Your task to perform on an android device: clear history in the chrome app Image 0: 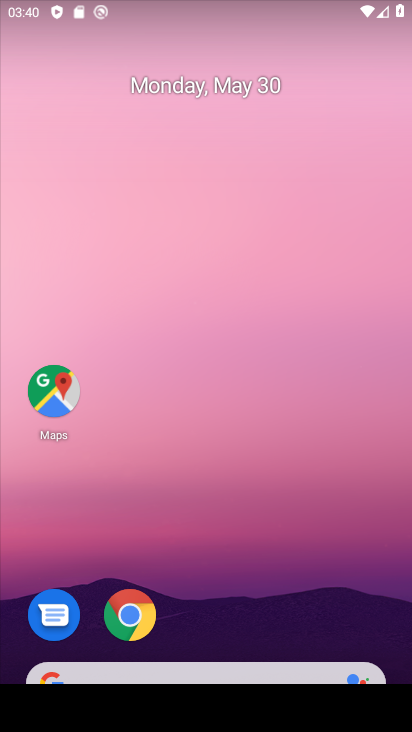
Step 0: click (130, 615)
Your task to perform on an android device: clear history in the chrome app Image 1: 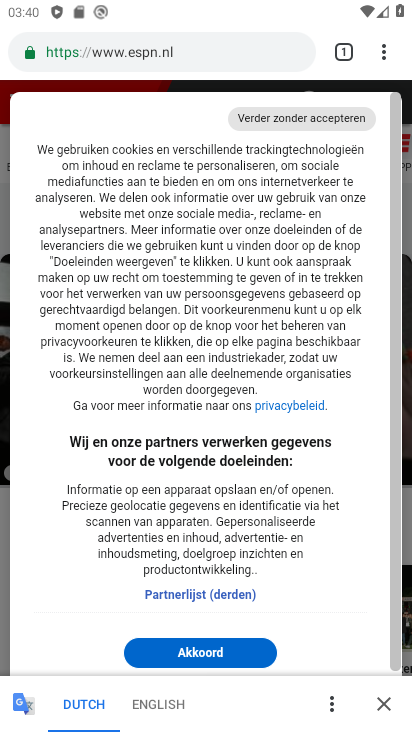
Step 1: click (385, 53)
Your task to perform on an android device: clear history in the chrome app Image 2: 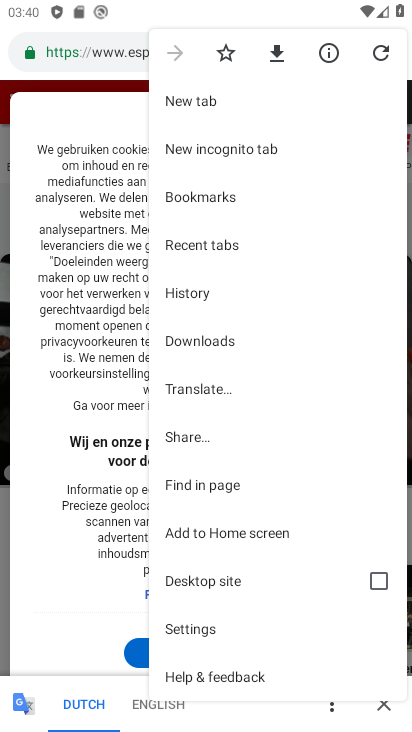
Step 2: click (189, 292)
Your task to perform on an android device: clear history in the chrome app Image 3: 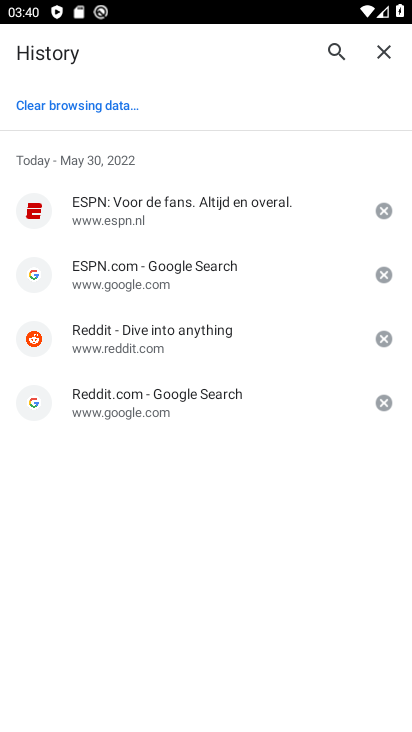
Step 3: click (107, 109)
Your task to perform on an android device: clear history in the chrome app Image 4: 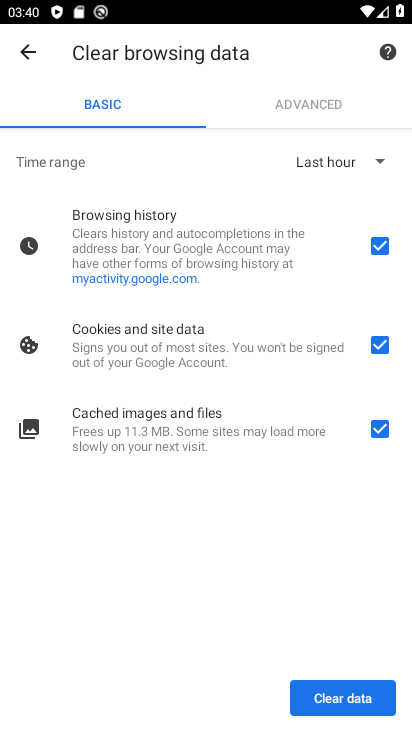
Step 4: click (369, 710)
Your task to perform on an android device: clear history in the chrome app Image 5: 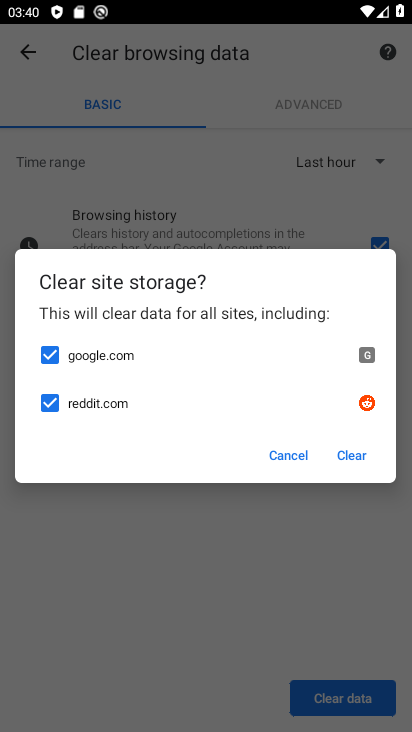
Step 5: click (363, 460)
Your task to perform on an android device: clear history in the chrome app Image 6: 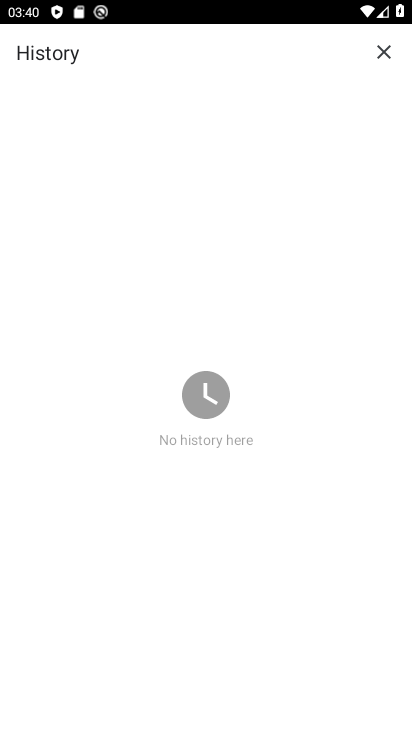
Step 6: task complete